Your task to perform on an android device: turn off improve location accuracy Image 0: 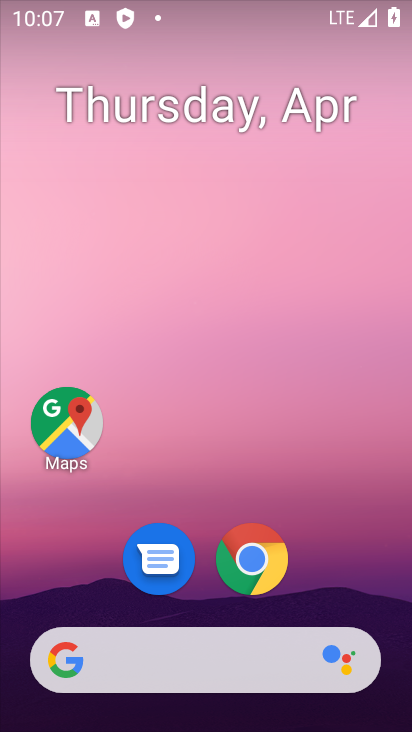
Step 0: drag from (206, 707) to (216, 6)
Your task to perform on an android device: turn off improve location accuracy Image 1: 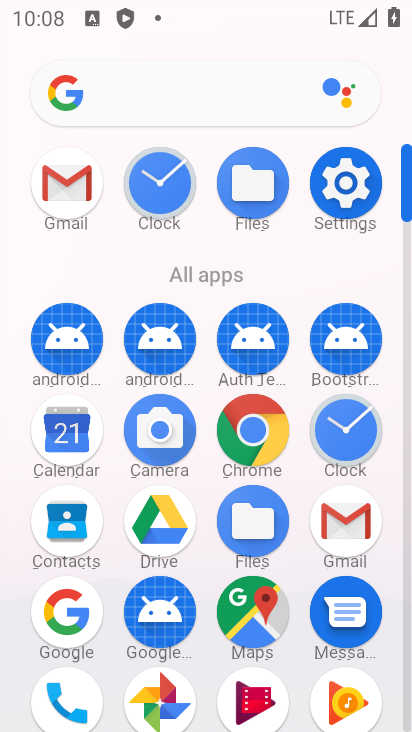
Step 1: click (340, 180)
Your task to perform on an android device: turn off improve location accuracy Image 2: 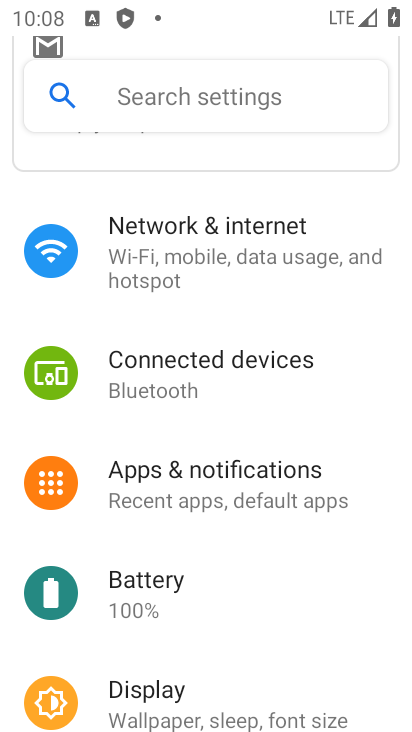
Step 2: drag from (259, 633) to (217, 18)
Your task to perform on an android device: turn off improve location accuracy Image 3: 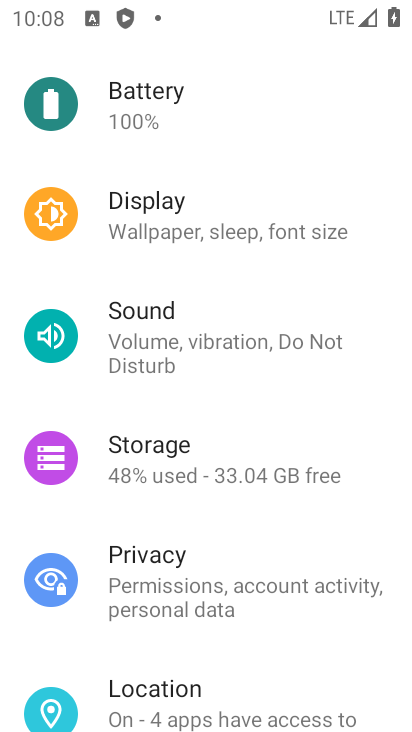
Step 3: click (199, 698)
Your task to perform on an android device: turn off improve location accuracy Image 4: 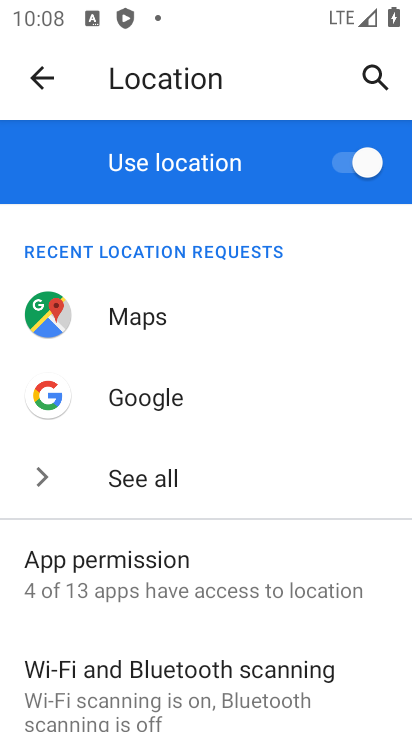
Step 4: drag from (337, 652) to (324, 33)
Your task to perform on an android device: turn off improve location accuracy Image 5: 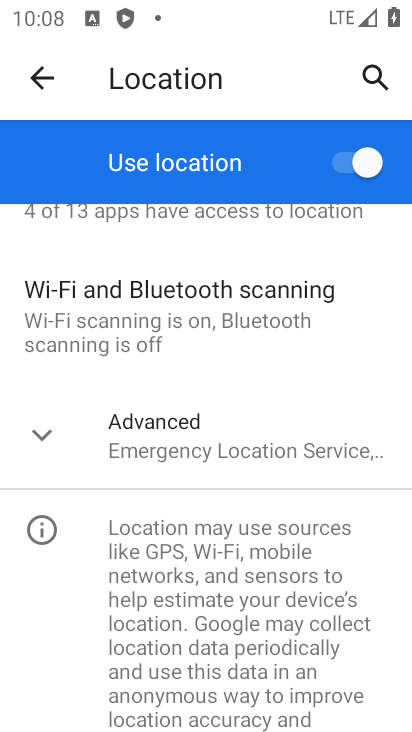
Step 5: click (316, 439)
Your task to perform on an android device: turn off improve location accuracy Image 6: 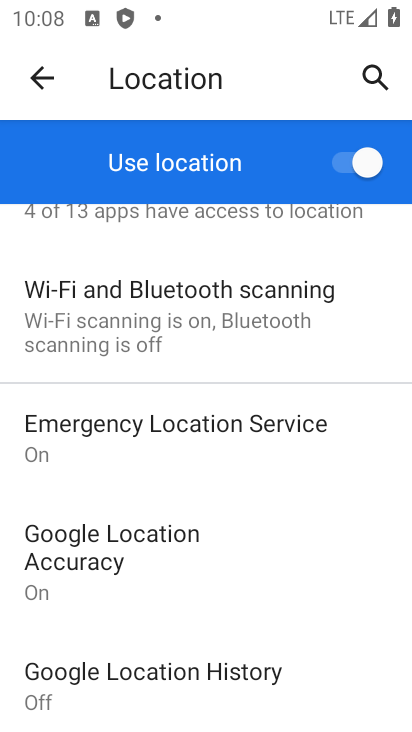
Step 6: click (118, 560)
Your task to perform on an android device: turn off improve location accuracy Image 7: 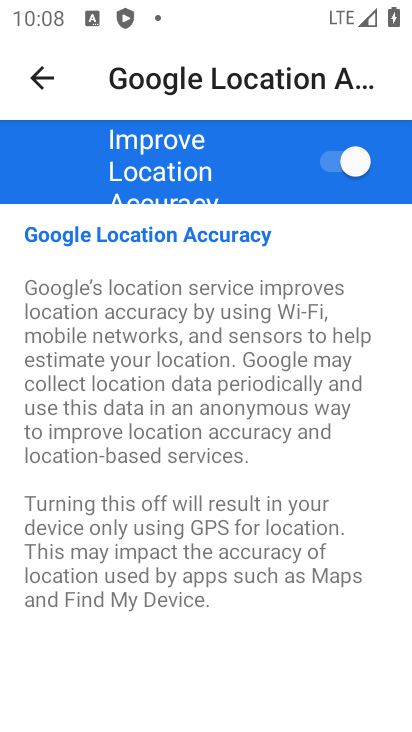
Step 7: click (358, 150)
Your task to perform on an android device: turn off improve location accuracy Image 8: 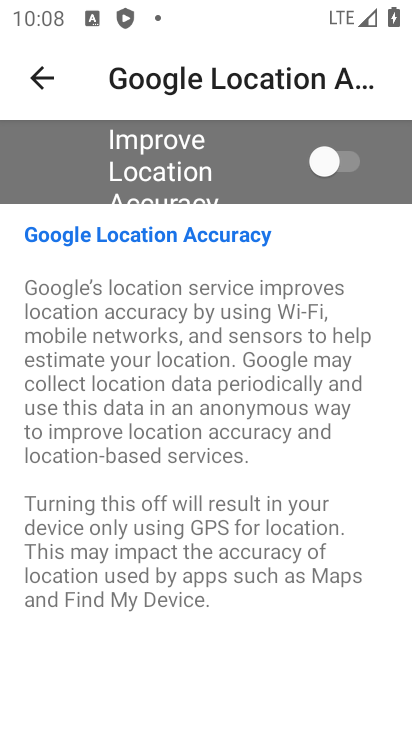
Step 8: task complete